Your task to perform on an android device: turn vacation reply on in the gmail app Image 0: 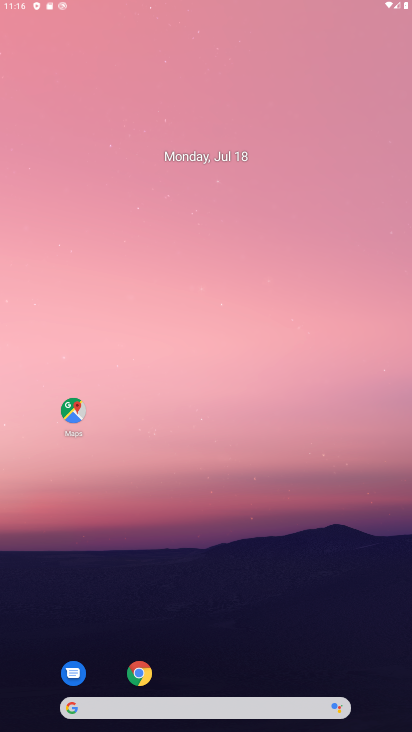
Step 0: press home button
Your task to perform on an android device: turn vacation reply on in the gmail app Image 1: 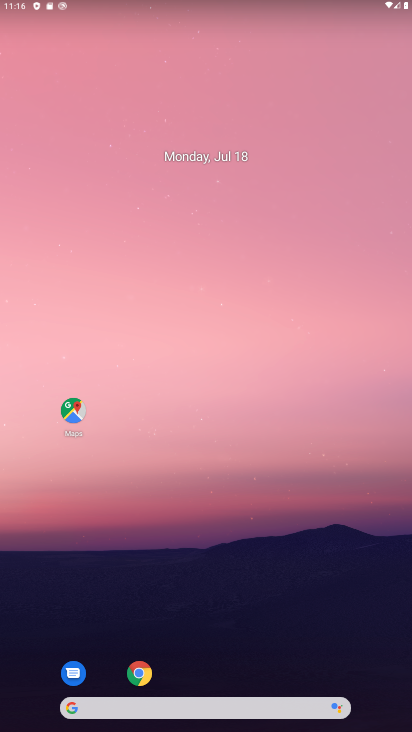
Step 1: drag from (215, 680) to (233, 76)
Your task to perform on an android device: turn vacation reply on in the gmail app Image 2: 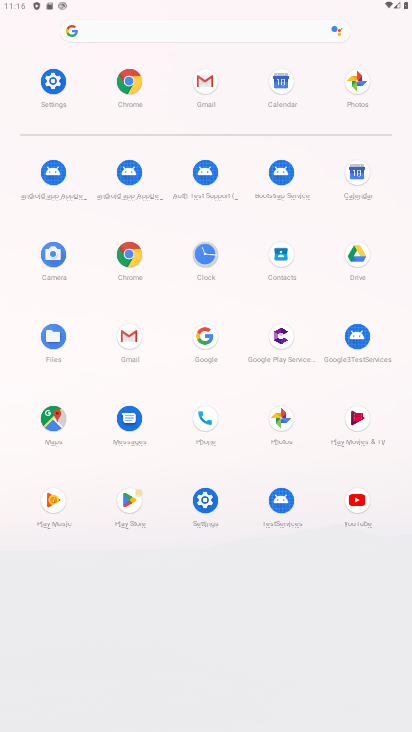
Step 2: click (200, 77)
Your task to perform on an android device: turn vacation reply on in the gmail app Image 3: 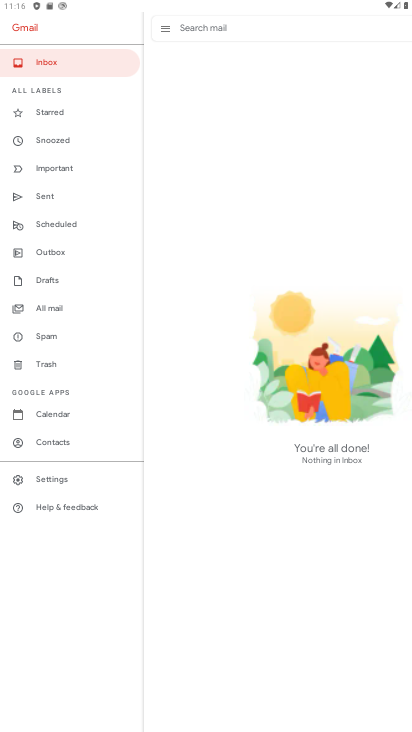
Step 3: click (70, 479)
Your task to perform on an android device: turn vacation reply on in the gmail app Image 4: 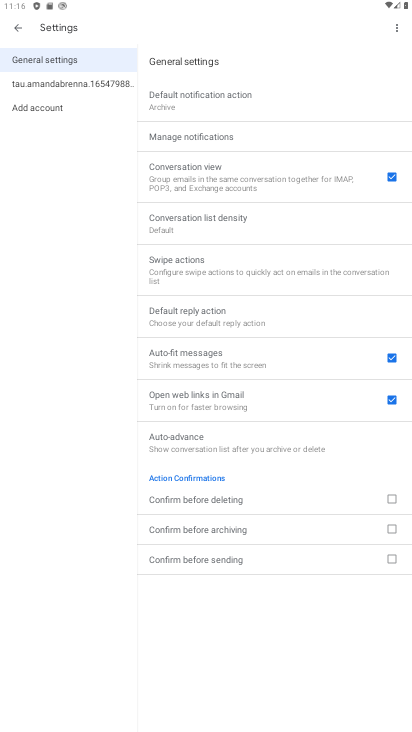
Step 4: click (92, 81)
Your task to perform on an android device: turn vacation reply on in the gmail app Image 5: 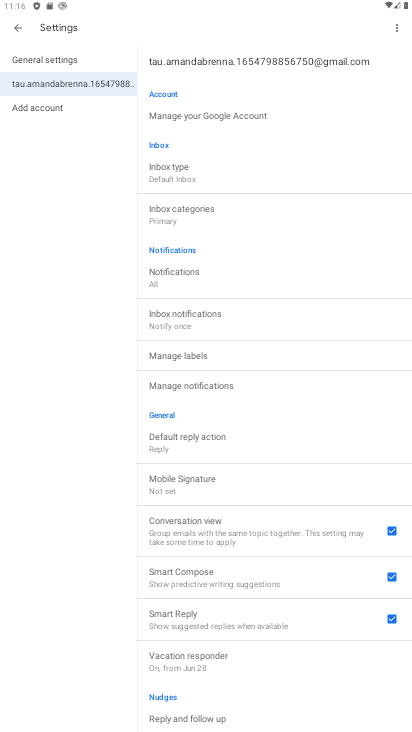
Step 5: click (218, 668)
Your task to perform on an android device: turn vacation reply on in the gmail app Image 6: 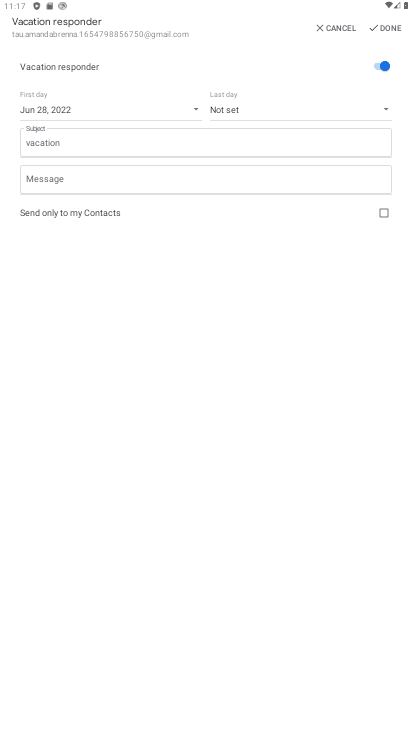
Step 6: task complete